Your task to perform on an android device: toggle wifi Image 0: 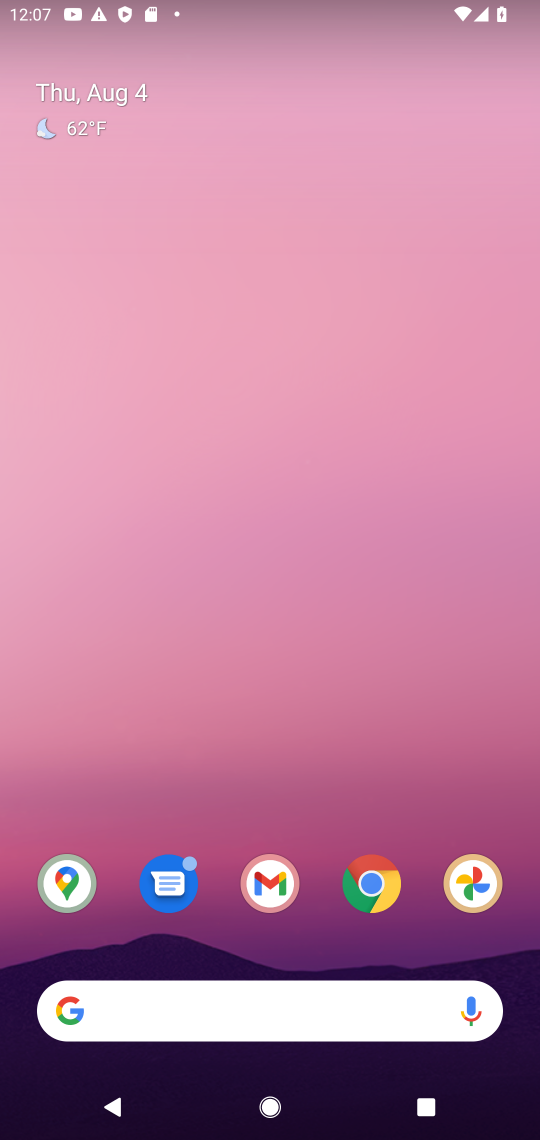
Step 0: drag from (316, 963) to (537, 231)
Your task to perform on an android device: toggle wifi Image 1: 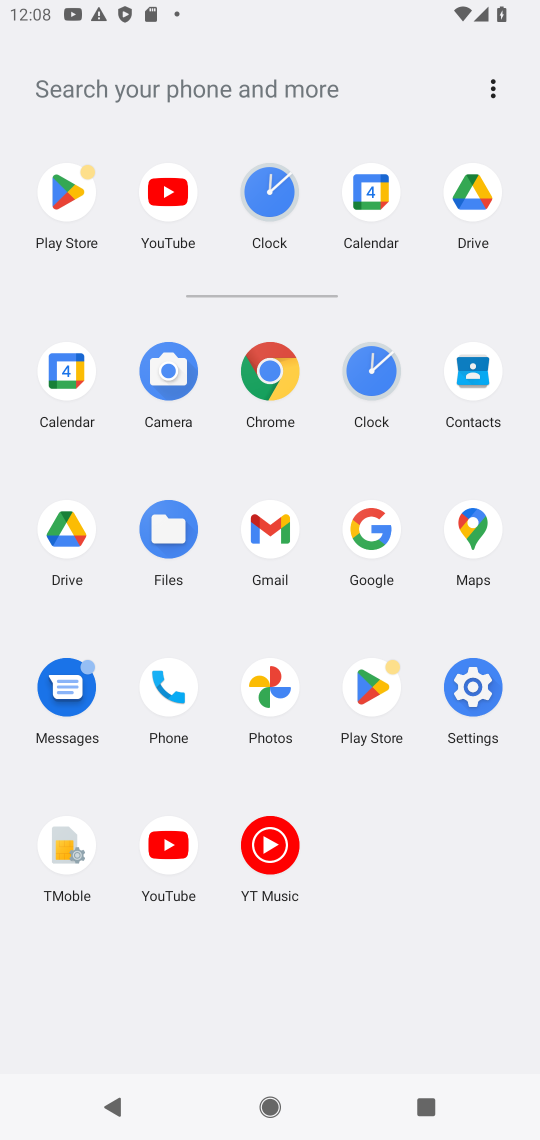
Step 1: click (471, 691)
Your task to perform on an android device: toggle wifi Image 2: 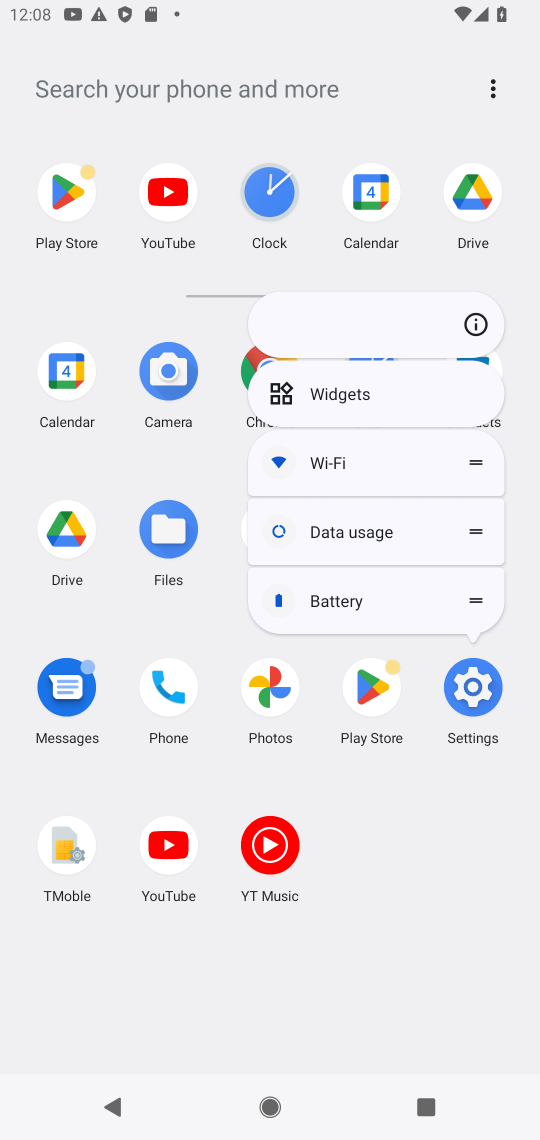
Step 2: click (456, 337)
Your task to perform on an android device: toggle wifi Image 3: 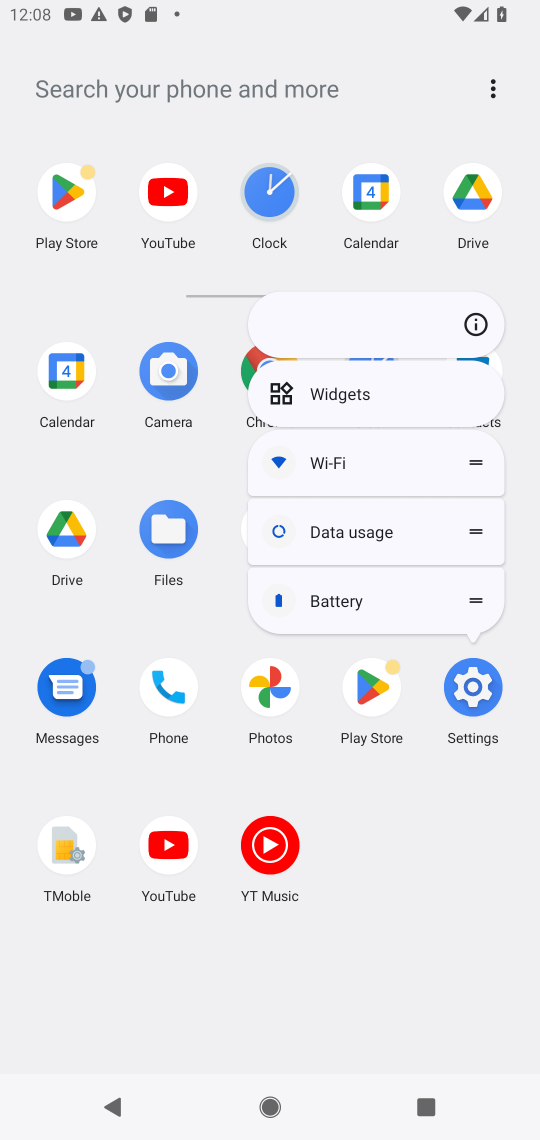
Step 3: click (474, 328)
Your task to perform on an android device: toggle wifi Image 4: 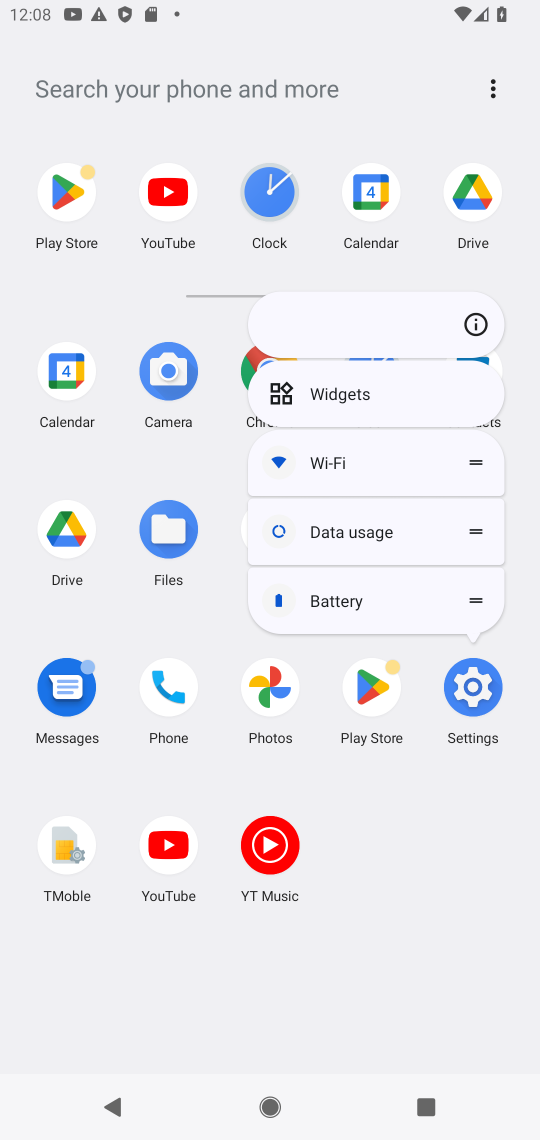
Step 4: click (463, 318)
Your task to perform on an android device: toggle wifi Image 5: 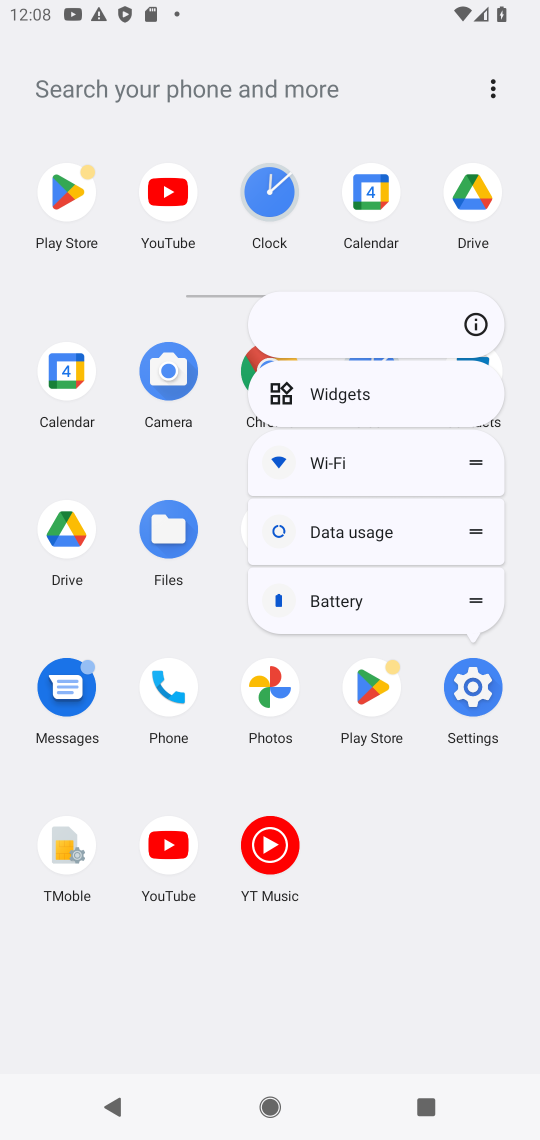
Step 5: click (470, 333)
Your task to perform on an android device: toggle wifi Image 6: 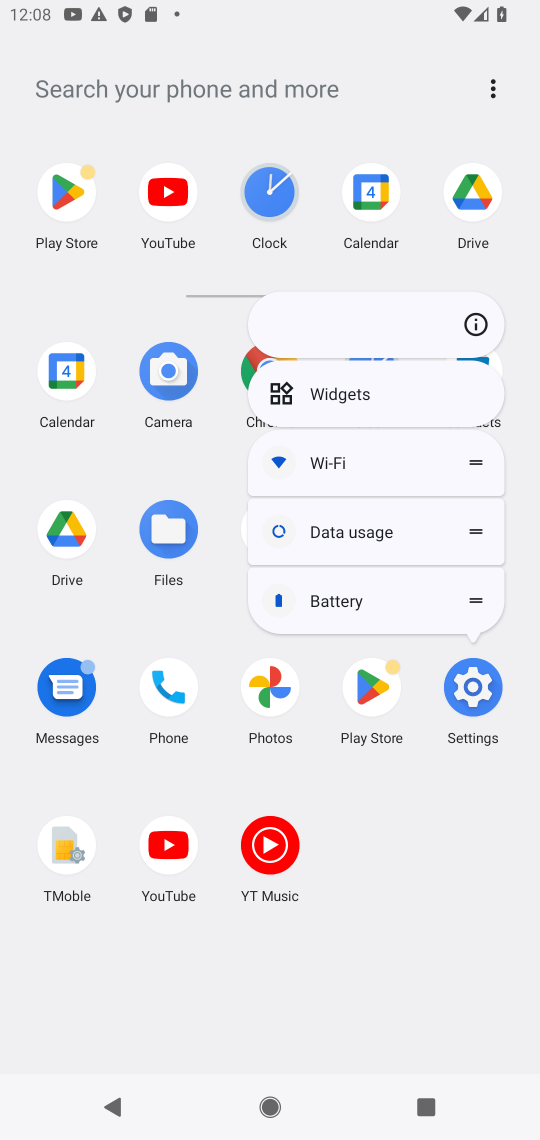
Step 6: click (471, 322)
Your task to perform on an android device: toggle wifi Image 7: 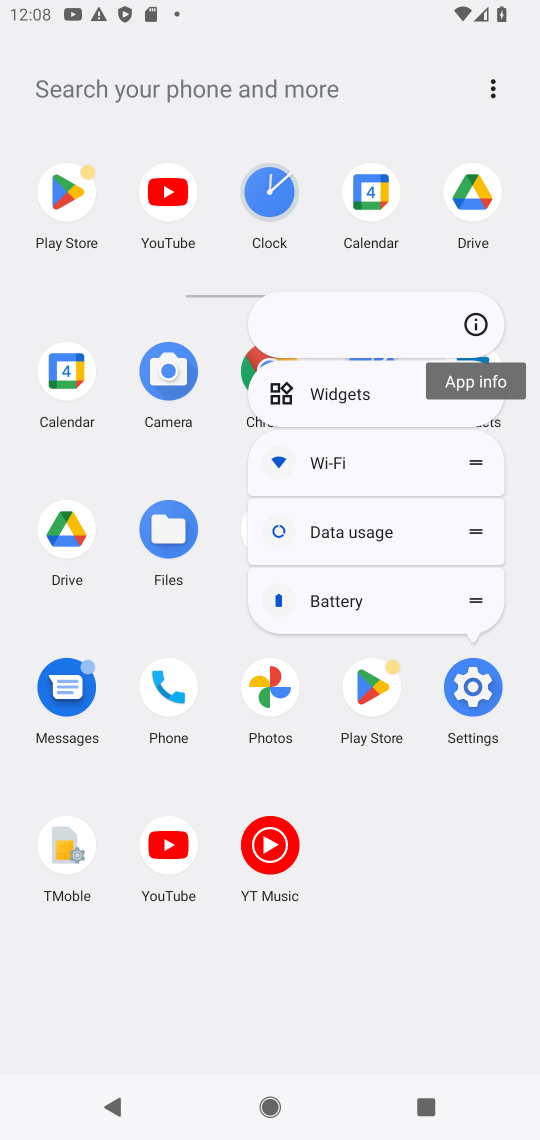
Step 7: click (471, 322)
Your task to perform on an android device: toggle wifi Image 8: 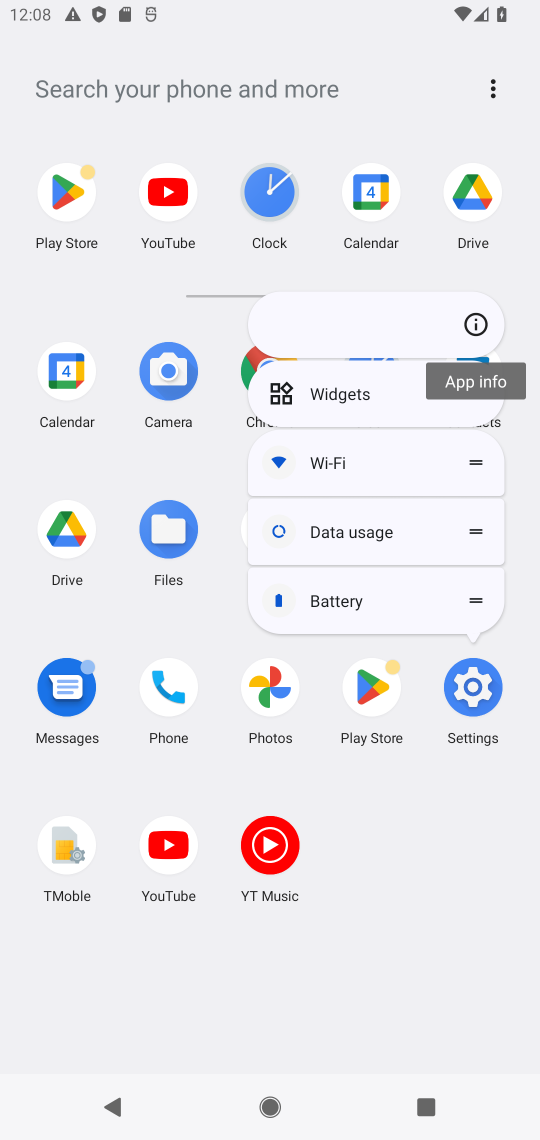
Step 8: click (479, 305)
Your task to perform on an android device: toggle wifi Image 9: 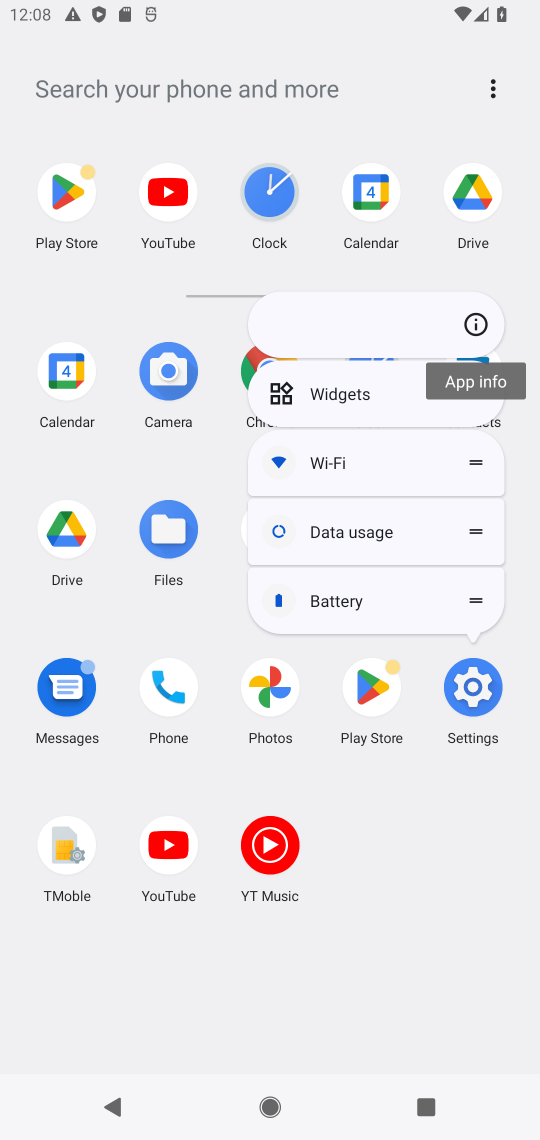
Step 9: click (479, 305)
Your task to perform on an android device: toggle wifi Image 10: 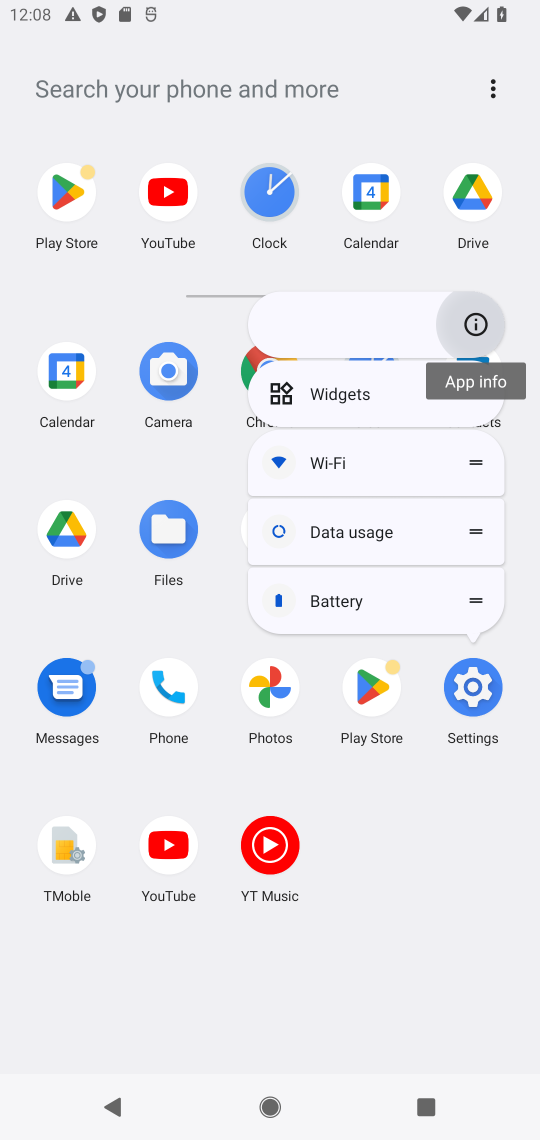
Step 10: click (481, 308)
Your task to perform on an android device: toggle wifi Image 11: 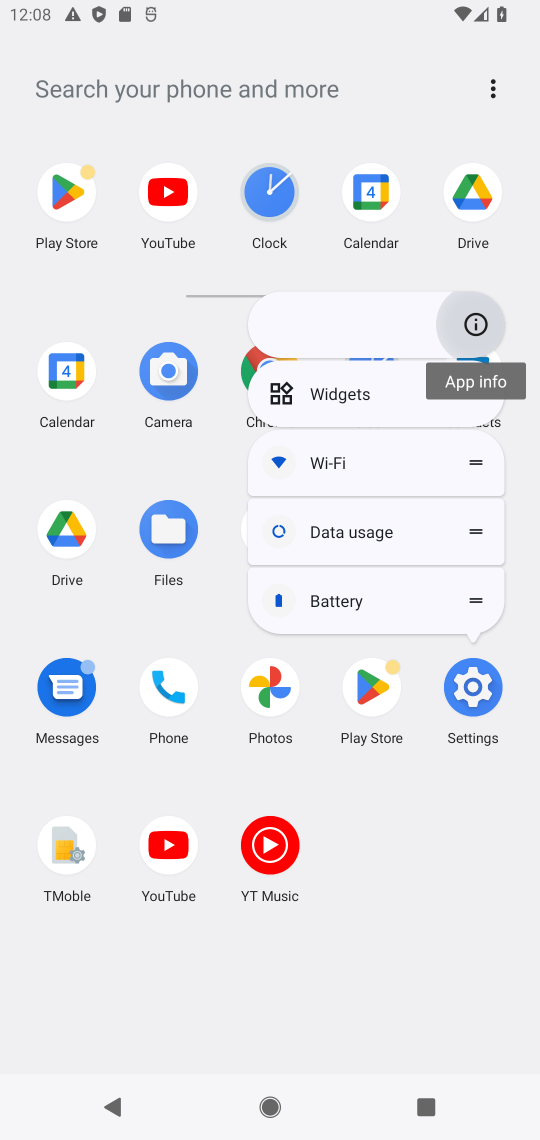
Step 11: click (481, 310)
Your task to perform on an android device: toggle wifi Image 12: 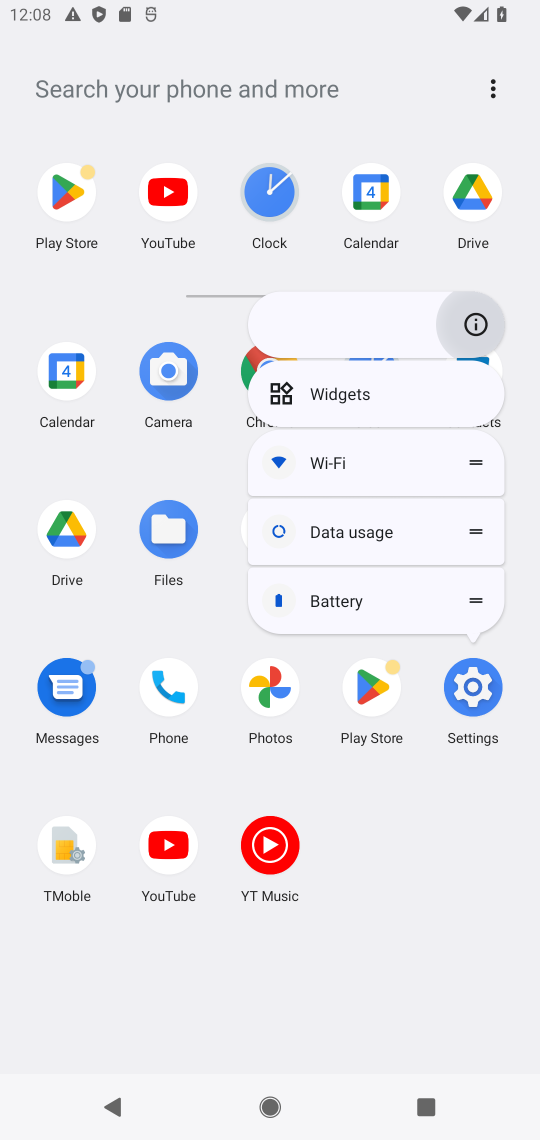
Step 12: click (481, 310)
Your task to perform on an android device: toggle wifi Image 13: 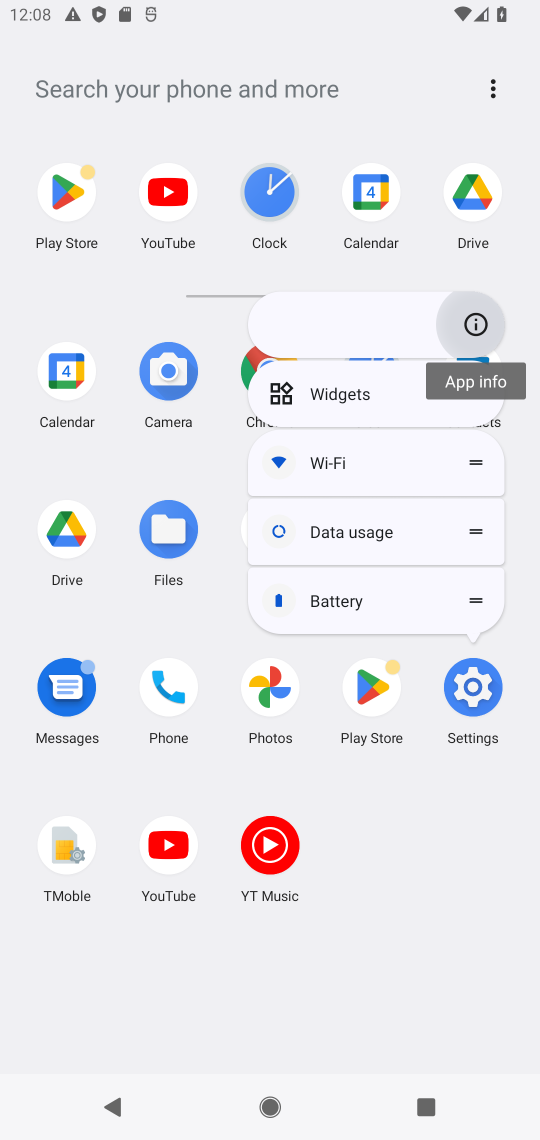
Step 13: click (481, 310)
Your task to perform on an android device: toggle wifi Image 14: 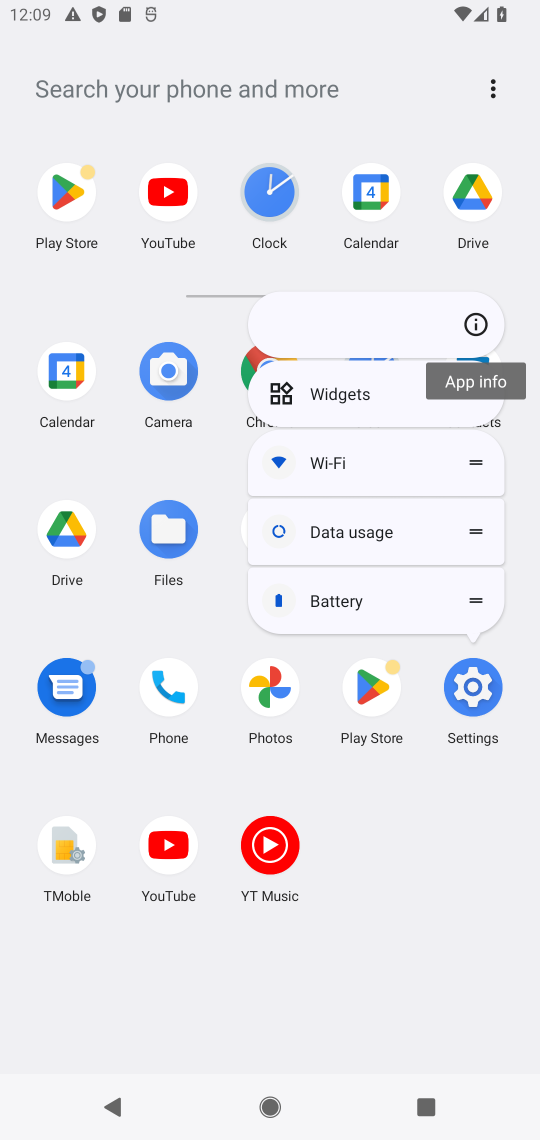
Step 14: click (491, 701)
Your task to perform on an android device: toggle wifi Image 15: 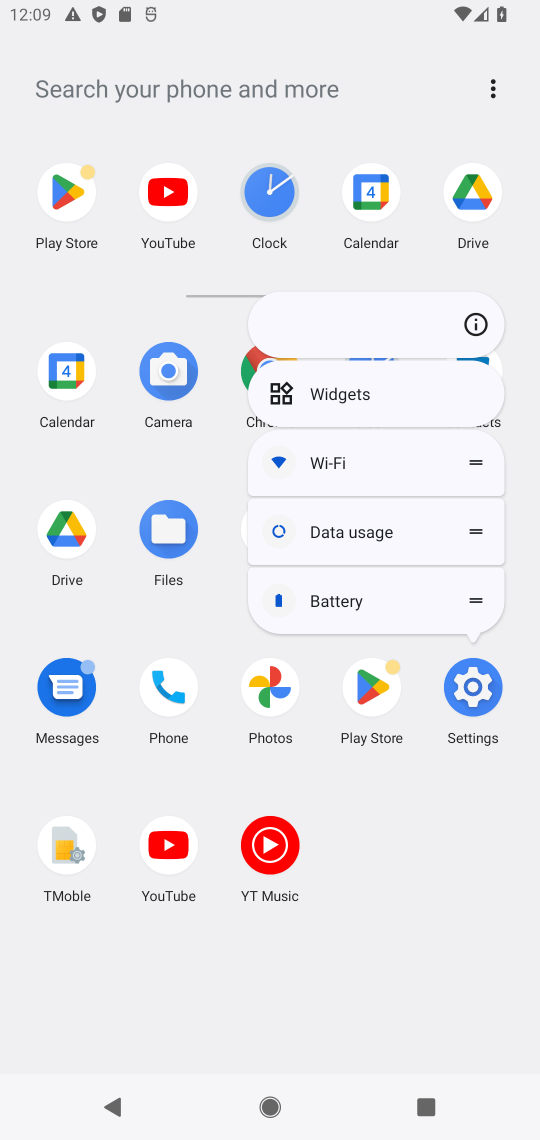
Step 15: click (492, 698)
Your task to perform on an android device: toggle wifi Image 16: 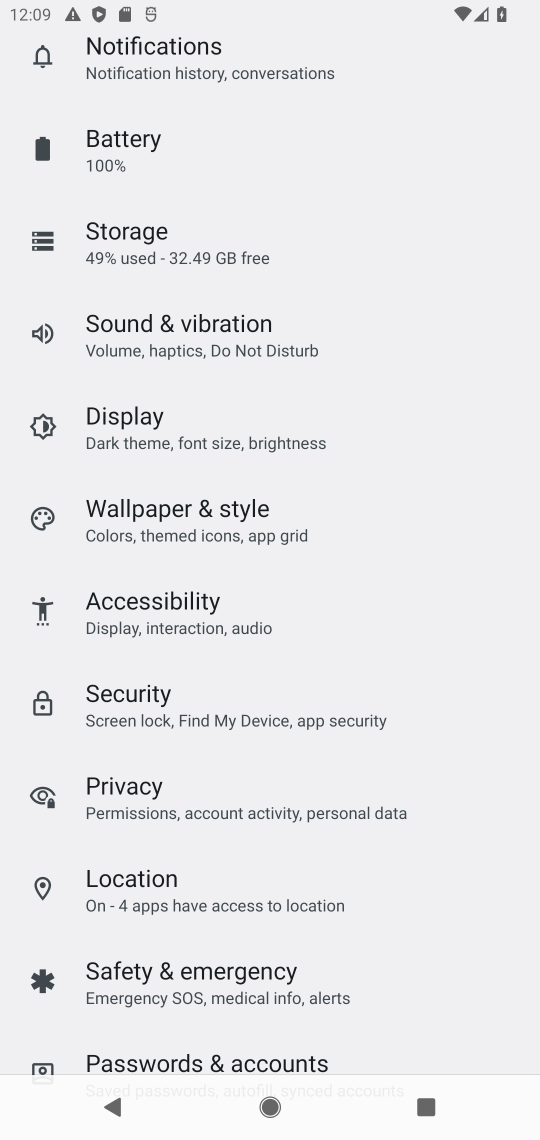
Step 16: drag from (226, 132) to (344, 961)
Your task to perform on an android device: toggle wifi Image 17: 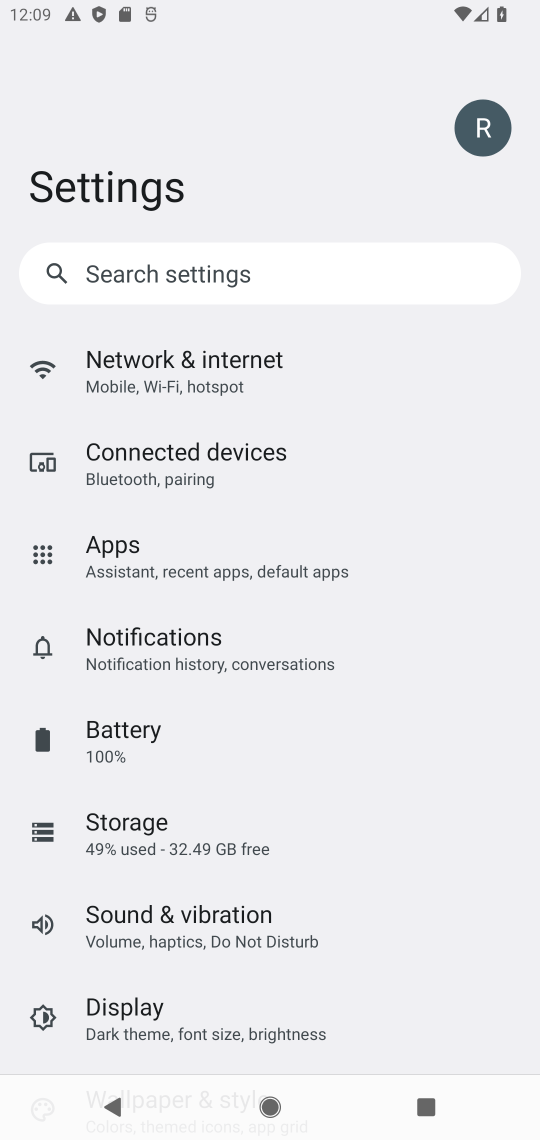
Step 17: click (162, 378)
Your task to perform on an android device: toggle wifi Image 18: 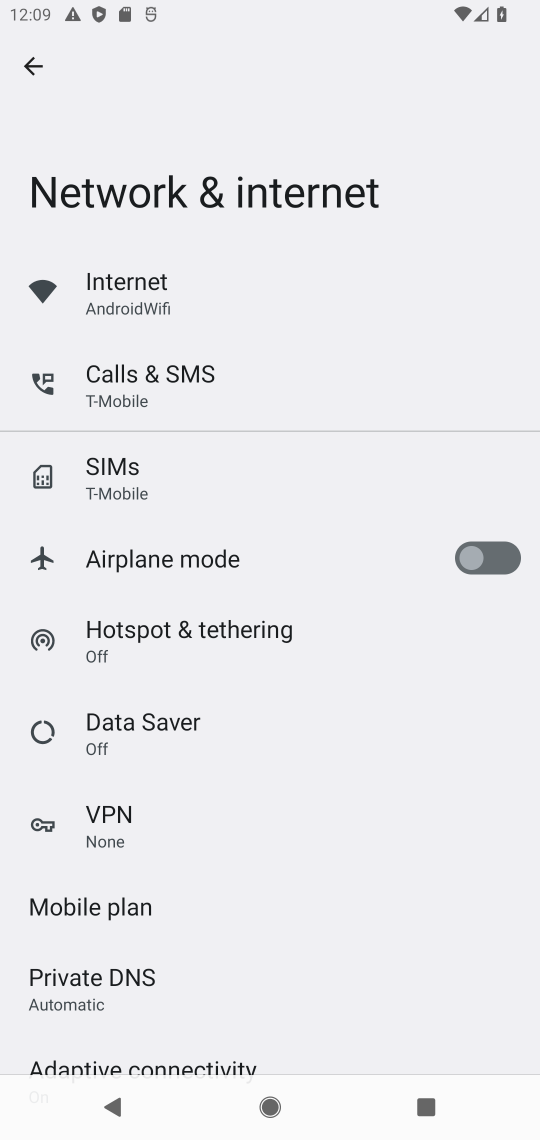
Step 18: click (128, 274)
Your task to perform on an android device: toggle wifi Image 19: 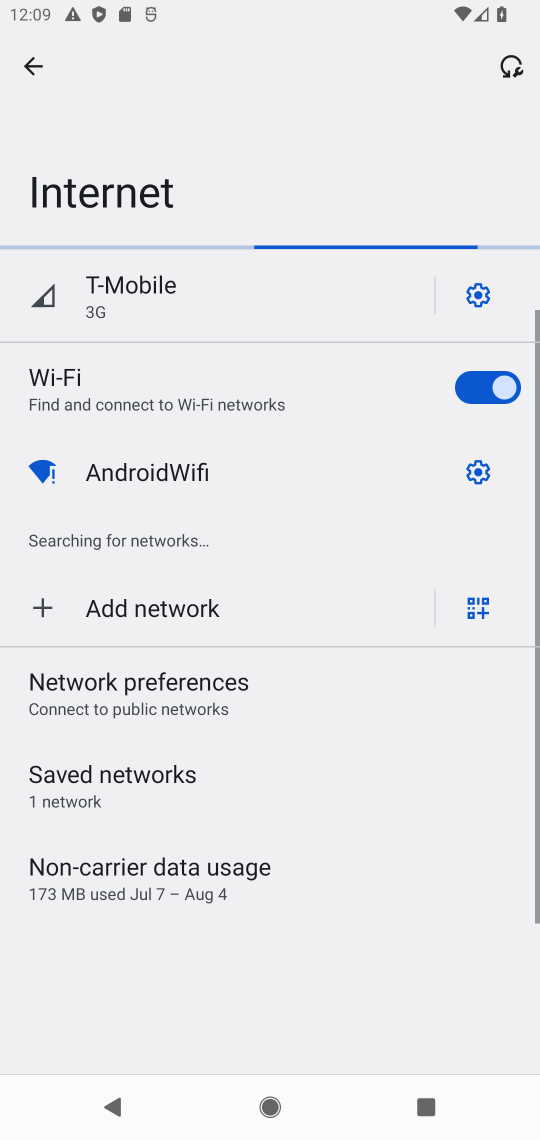
Step 19: click (481, 393)
Your task to perform on an android device: toggle wifi Image 20: 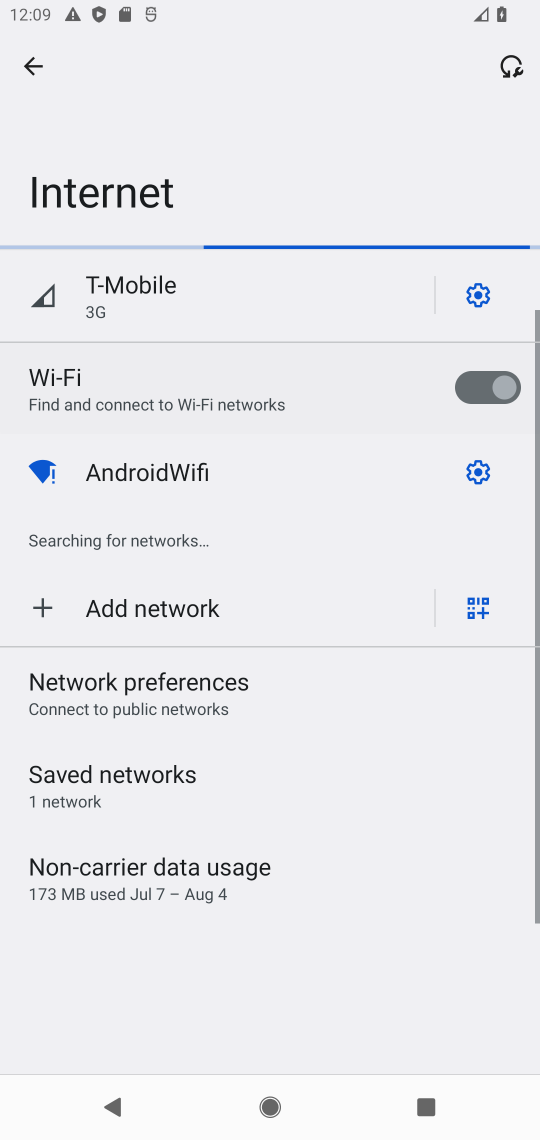
Step 20: task complete